Your task to perform on an android device: turn on javascript in the chrome app Image 0: 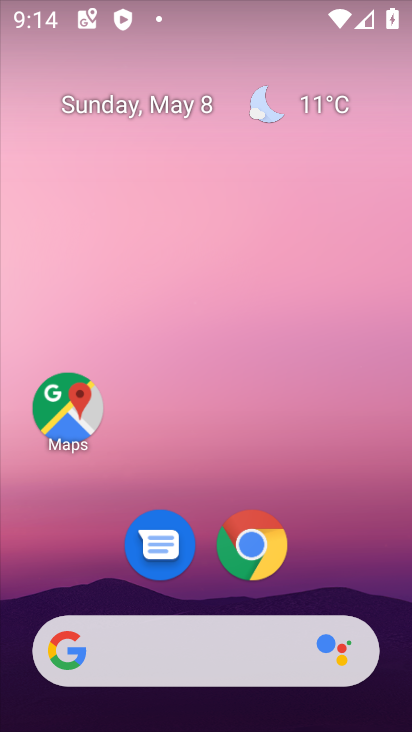
Step 0: click (259, 556)
Your task to perform on an android device: turn on javascript in the chrome app Image 1: 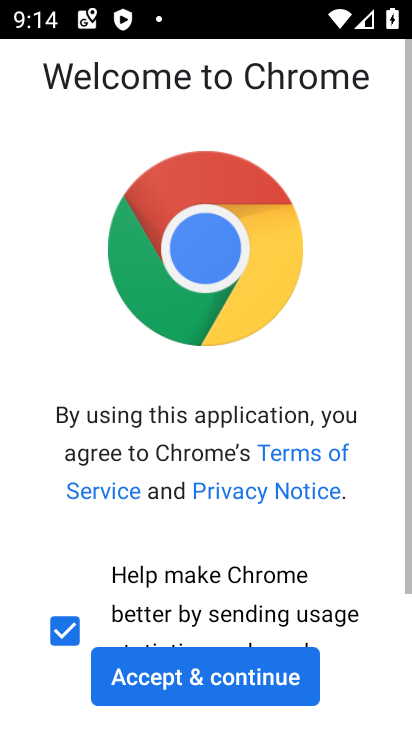
Step 1: click (267, 661)
Your task to perform on an android device: turn on javascript in the chrome app Image 2: 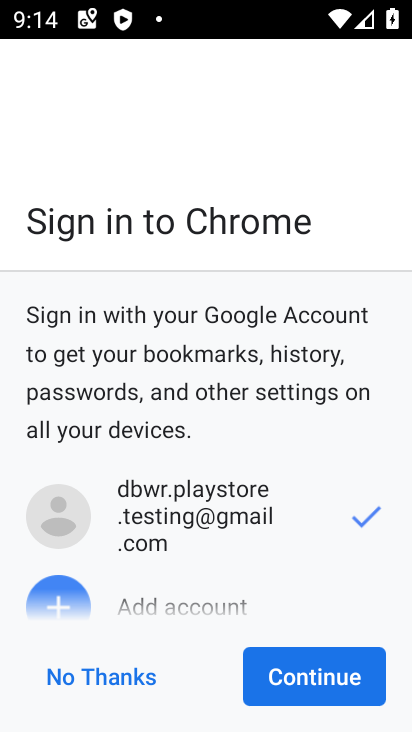
Step 2: click (320, 659)
Your task to perform on an android device: turn on javascript in the chrome app Image 3: 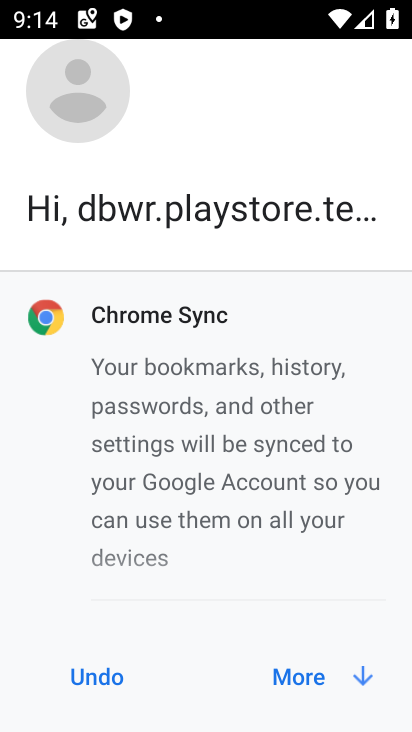
Step 3: click (321, 661)
Your task to perform on an android device: turn on javascript in the chrome app Image 4: 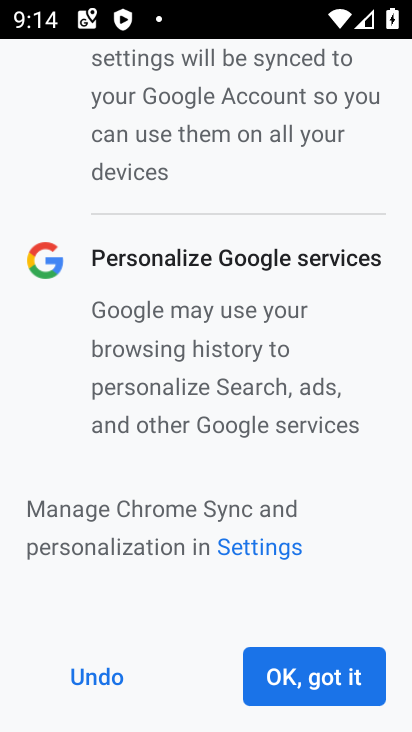
Step 4: click (321, 661)
Your task to perform on an android device: turn on javascript in the chrome app Image 5: 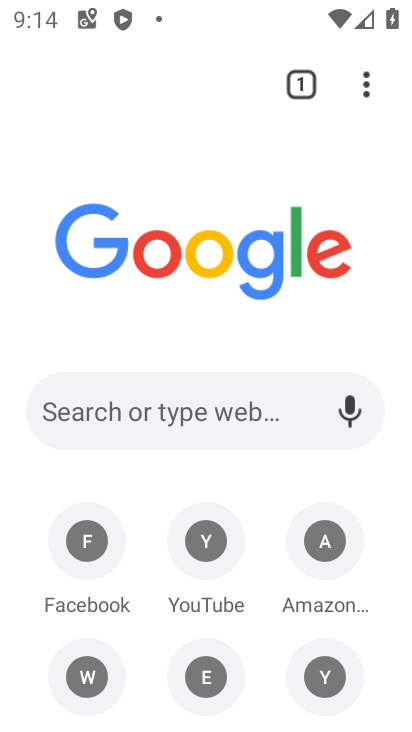
Step 5: click (349, 92)
Your task to perform on an android device: turn on javascript in the chrome app Image 6: 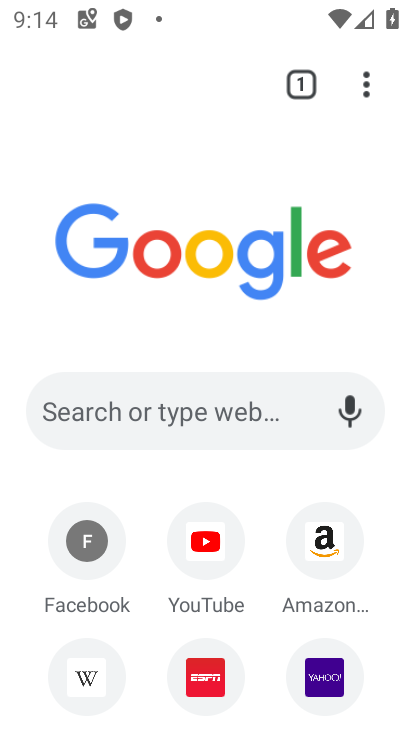
Step 6: click (370, 85)
Your task to perform on an android device: turn on javascript in the chrome app Image 7: 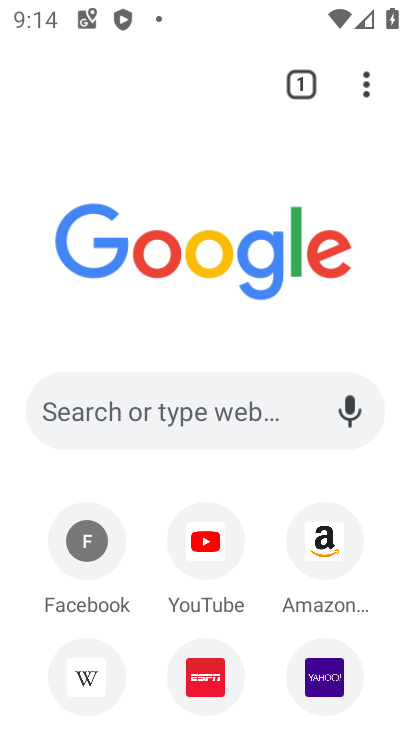
Step 7: click (368, 82)
Your task to perform on an android device: turn on javascript in the chrome app Image 8: 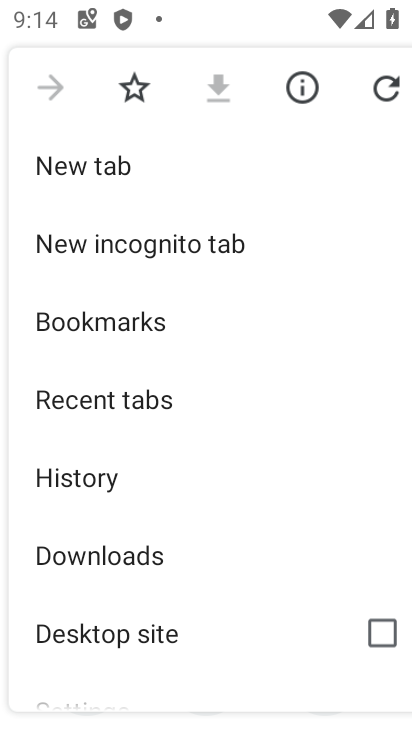
Step 8: drag from (200, 571) to (166, 125)
Your task to perform on an android device: turn on javascript in the chrome app Image 9: 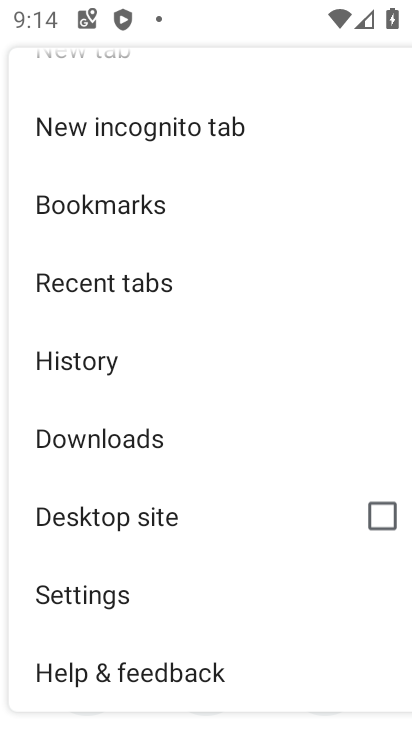
Step 9: click (80, 577)
Your task to perform on an android device: turn on javascript in the chrome app Image 10: 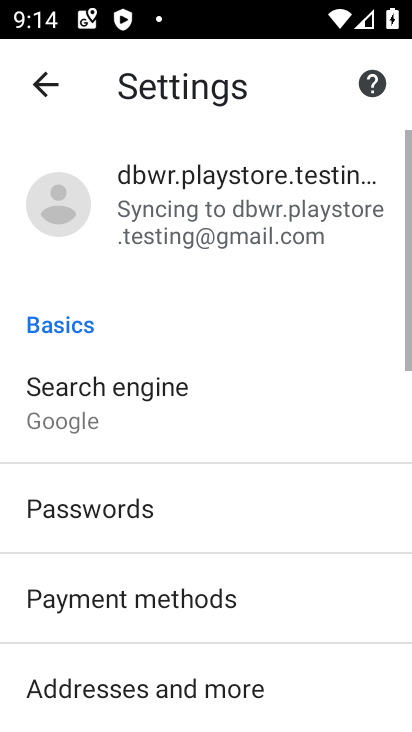
Step 10: drag from (190, 620) to (177, 78)
Your task to perform on an android device: turn on javascript in the chrome app Image 11: 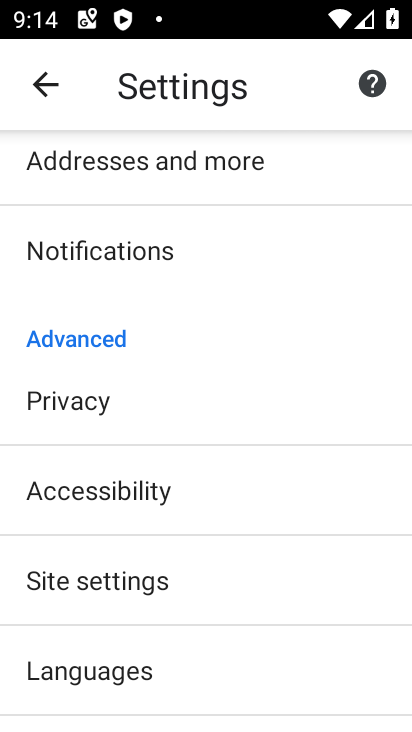
Step 11: click (96, 566)
Your task to perform on an android device: turn on javascript in the chrome app Image 12: 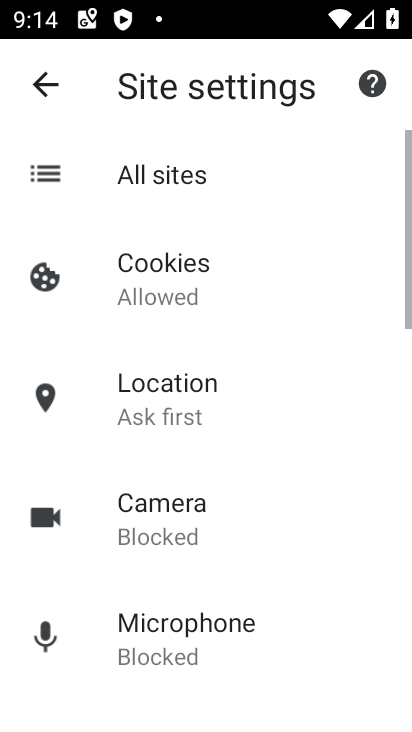
Step 12: drag from (155, 563) to (105, 117)
Your task to perform on an android device: turn on javascript in the chrome app Image 13: 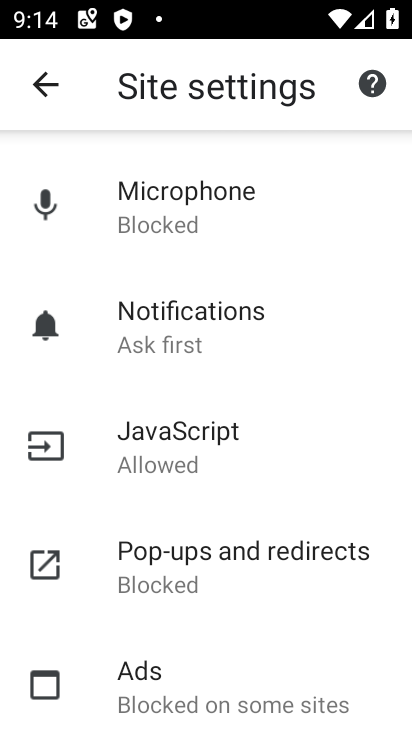
Step 13: click (141, 459)
Your task to perform on an android device: turn on javascript in the chrome app Image 14: 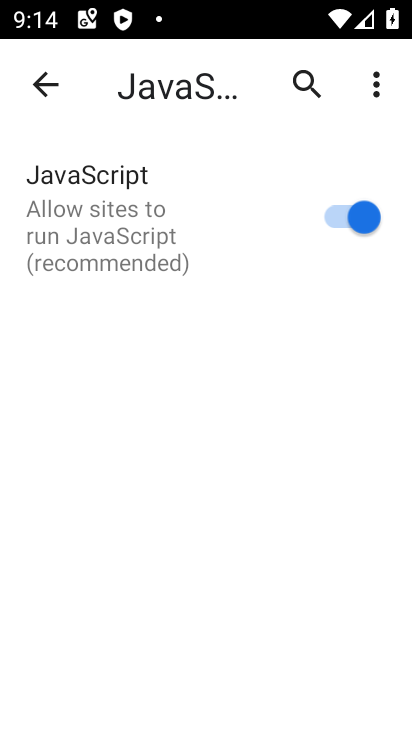
Step 14: task complete